Your task to perform on an android device: Go to CNN.com Image 0: 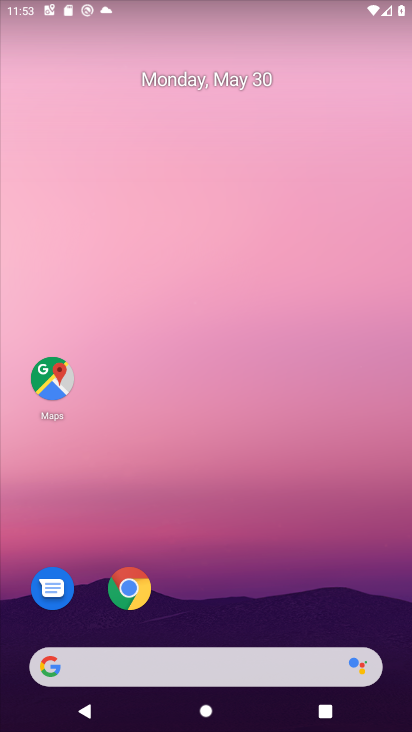
Step 0: drag from (239, 660) to (287, 5)
Your task to perform on an android device: Go to CNN.com Image 1: 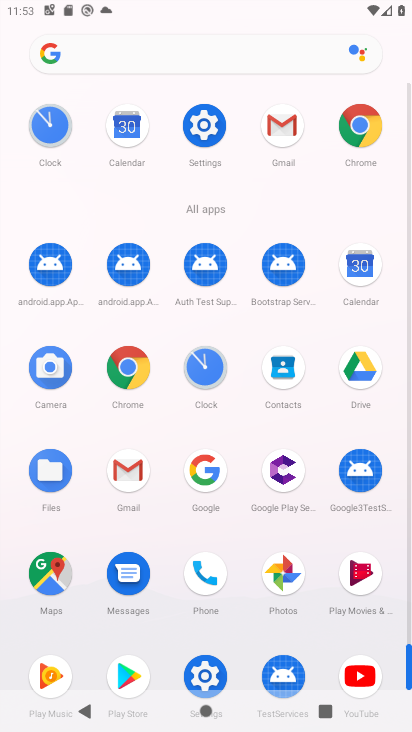
Step 1: click (138, 382)
Your task to perform on an android device: Go to CNN.com Image 2: 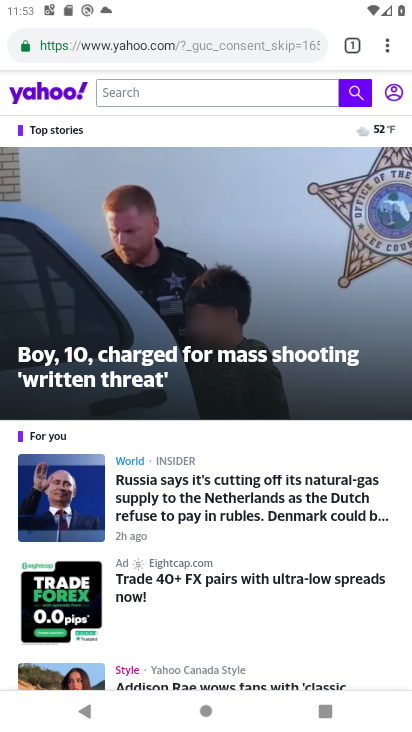
Step 2: click (147, 54)
Your task to perform on an android device: Go to CNN.com Image 3: 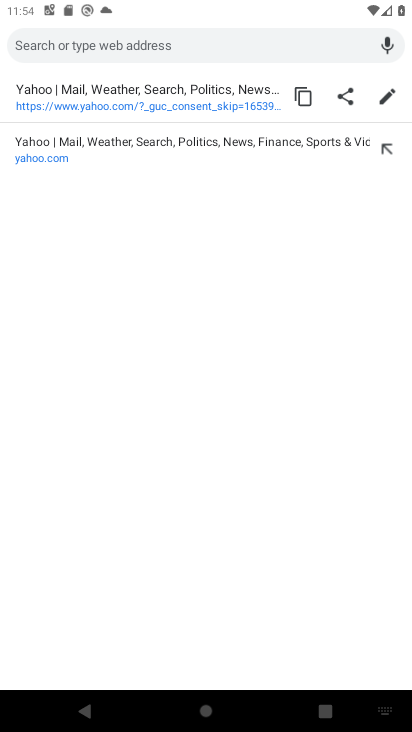
Step 3: type "cnn.com"
Your task to perform on an android device: Go to CNN.com Image 4: 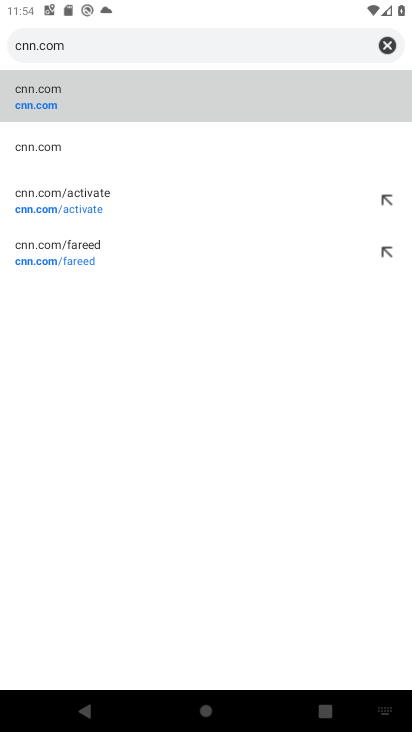
Step 4: click (81, 100)
Your task to perform on an android device: Go to CNN.com Image 5: 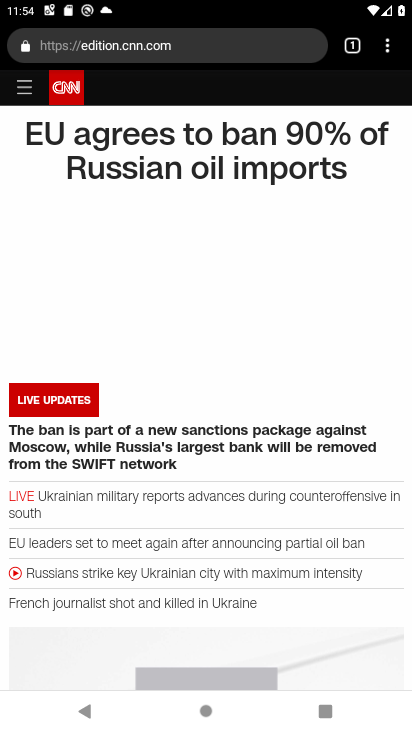
Step 5: task complete